Your task to perform on an android device: Go to network settings Image 0: 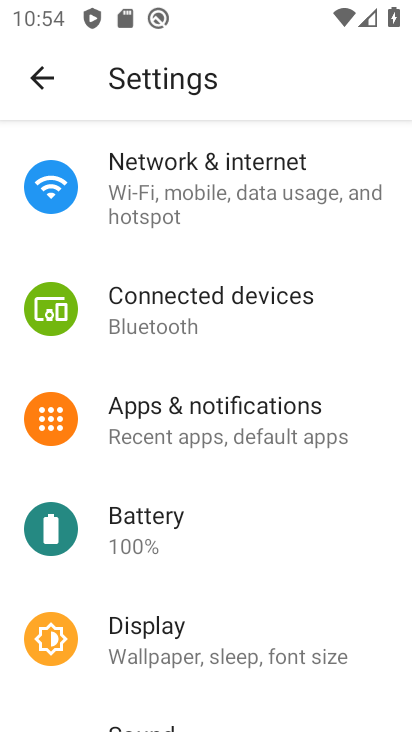
Step 0: drag from (231, 338) to (273, 564)
Your task to perform on an android device: Go to network settings Image 1: 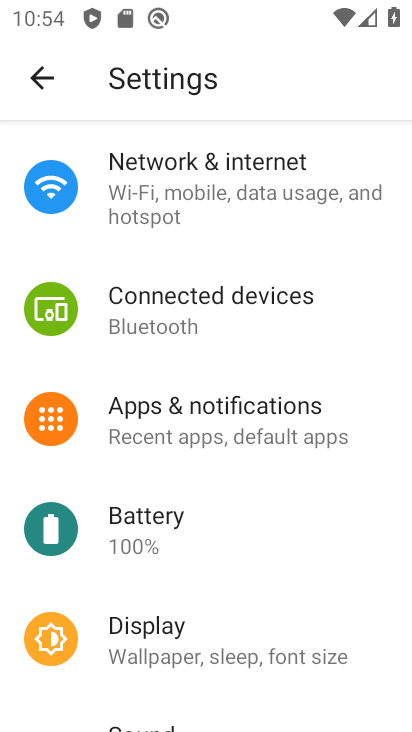
Step 1: click (188, 187)
Your task to perform on an android device: Go to network settings Image 2: 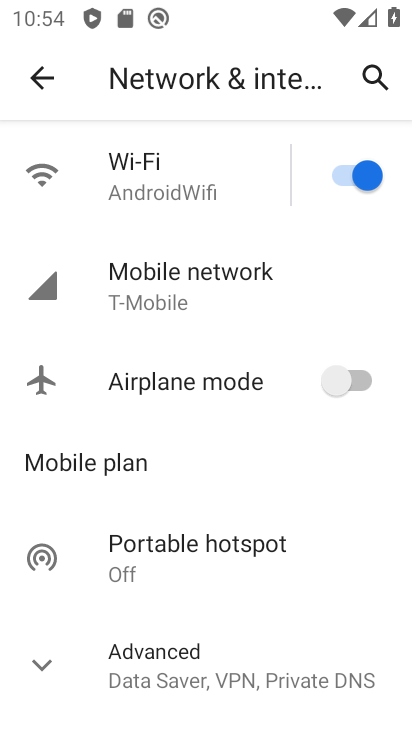
Step 2: task complete